Your task to perform on an android device: Do I have any events tomorrow? Image 0: 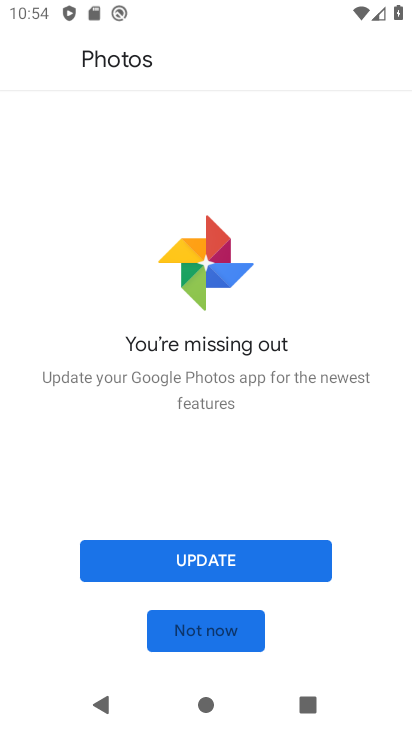
Step 0: press home button
Your task to perform on an android device: Do I have any events tomorrow? Image 1: 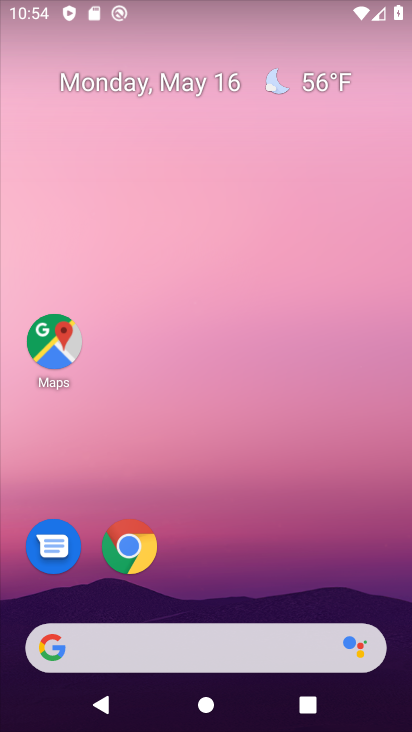
Step 1: drag from (296, 529) to (295, 86)
Your task to perform on an android device: Do I have any events tomorrow? Image 2: 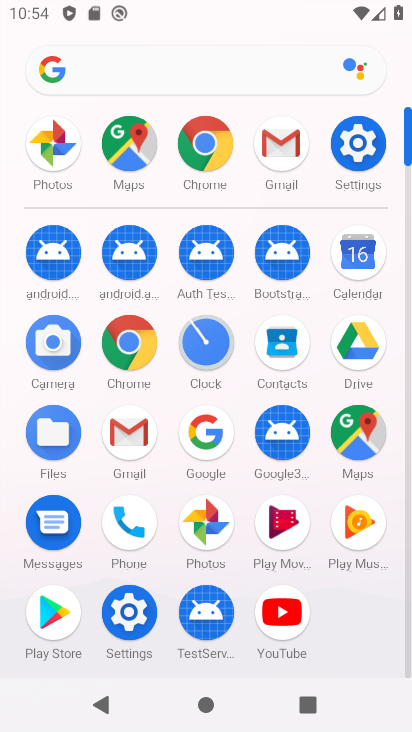
Step 2: click (354, 245)
Your task to perform on an android device: Do I have any events tomorrow? Image 3: 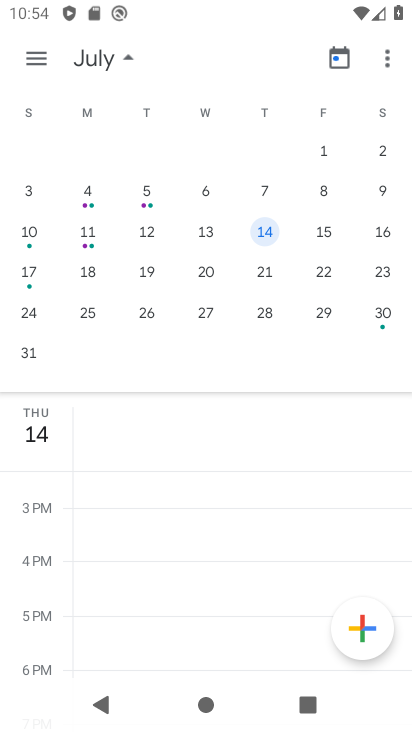
Step 3: click (329, 239)
Your task to perform on an android device: Do I have any events tomorrow? Image 4: 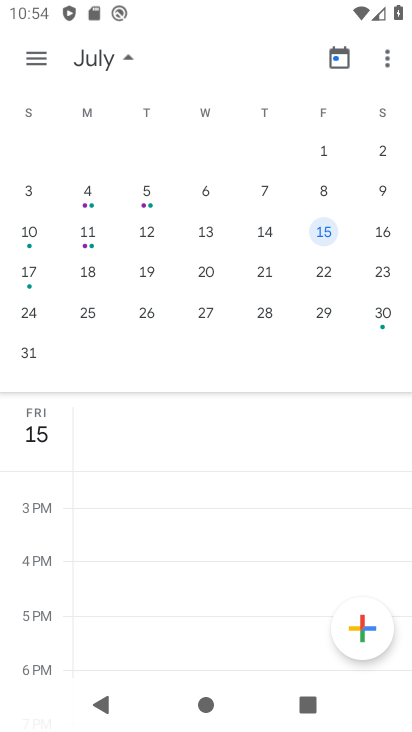
Step 4: task complete